Your task to perform on an android device: Open Google Maps Image 0: 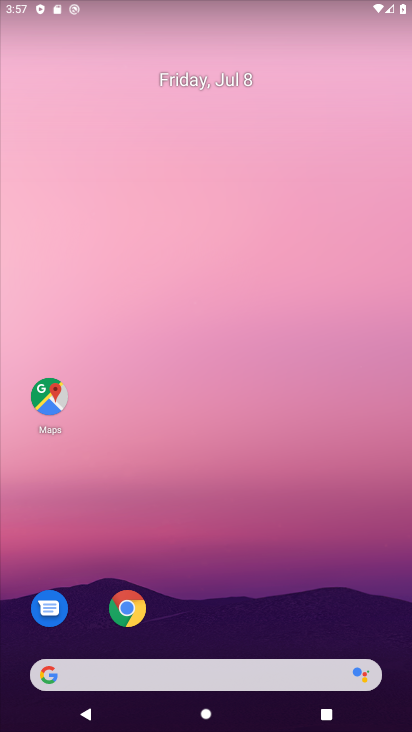
Step 0: press home button
Your task to perform on an android device: Open Google Maps Image 1: 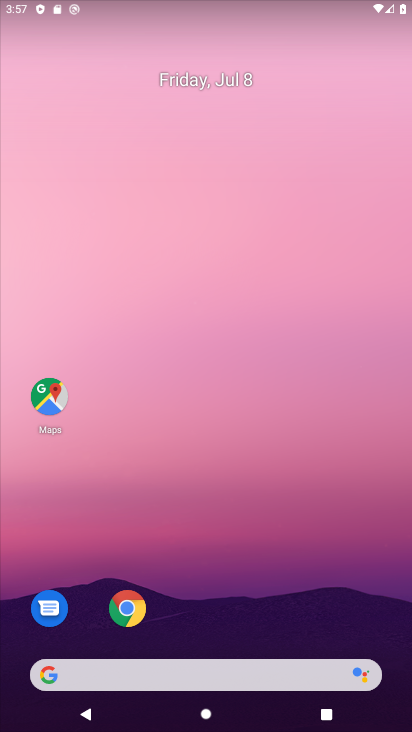
Step 1: click (45, 384)
Your task to perform on an android device: Open Google Maps Image 2: 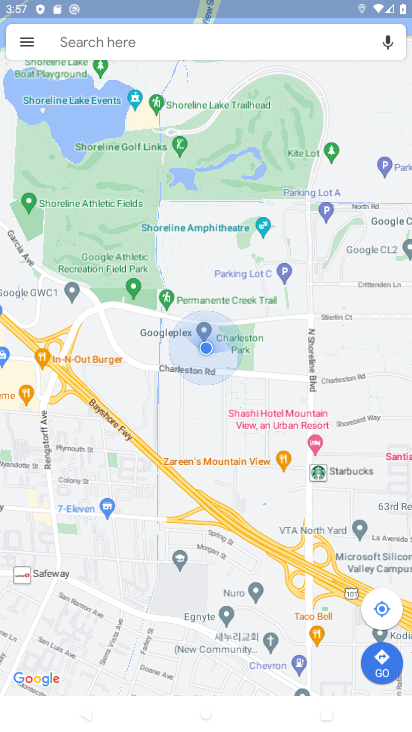
Step 2: task complete